Your task to perform on an android device: choose inbox layout in the gmail app Image 0: 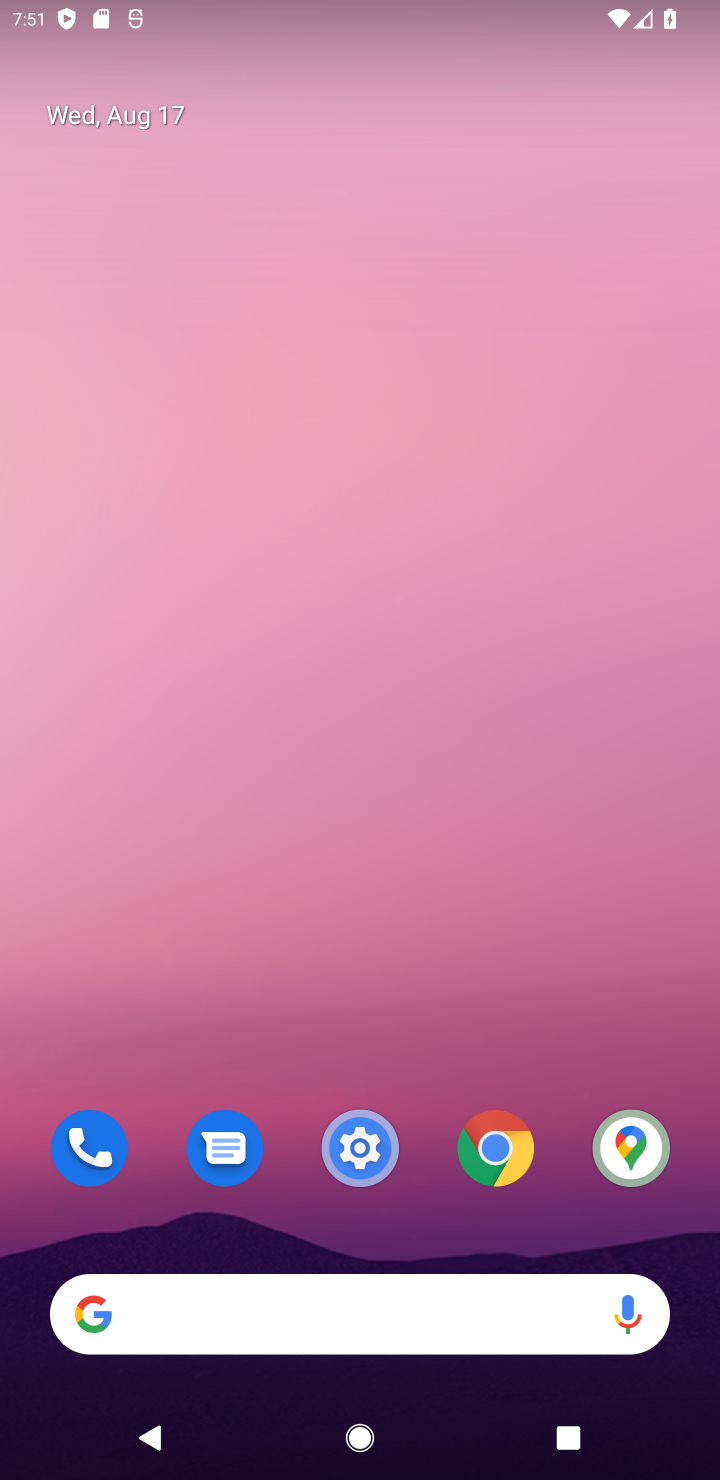
Step 0: drag from (259, 1264) to (346, 555)
Your task to perform on an android device: choose inbox layout in the gmail app Image 1: 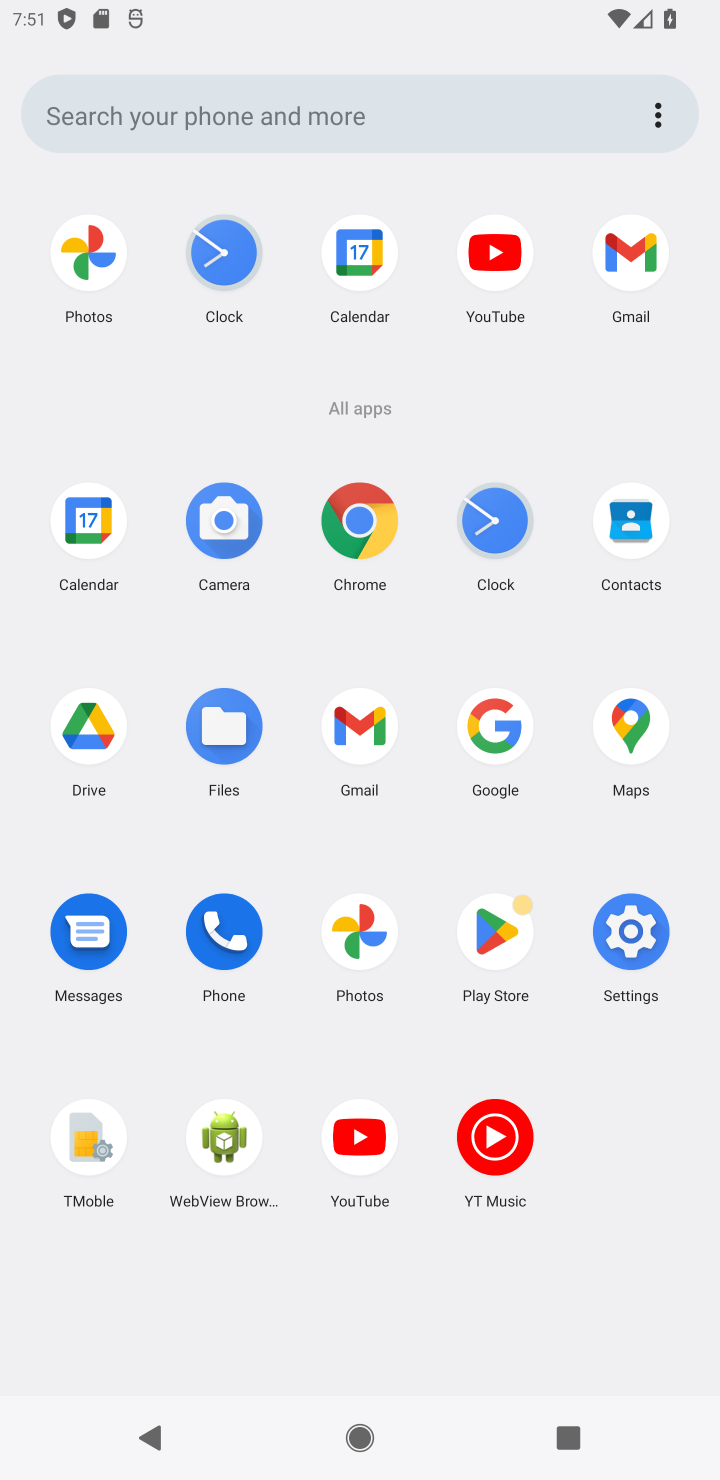
Step 1: click (338, 746)
Your task to perform on an android device: choose inbox layout in the gmail app Image 2: 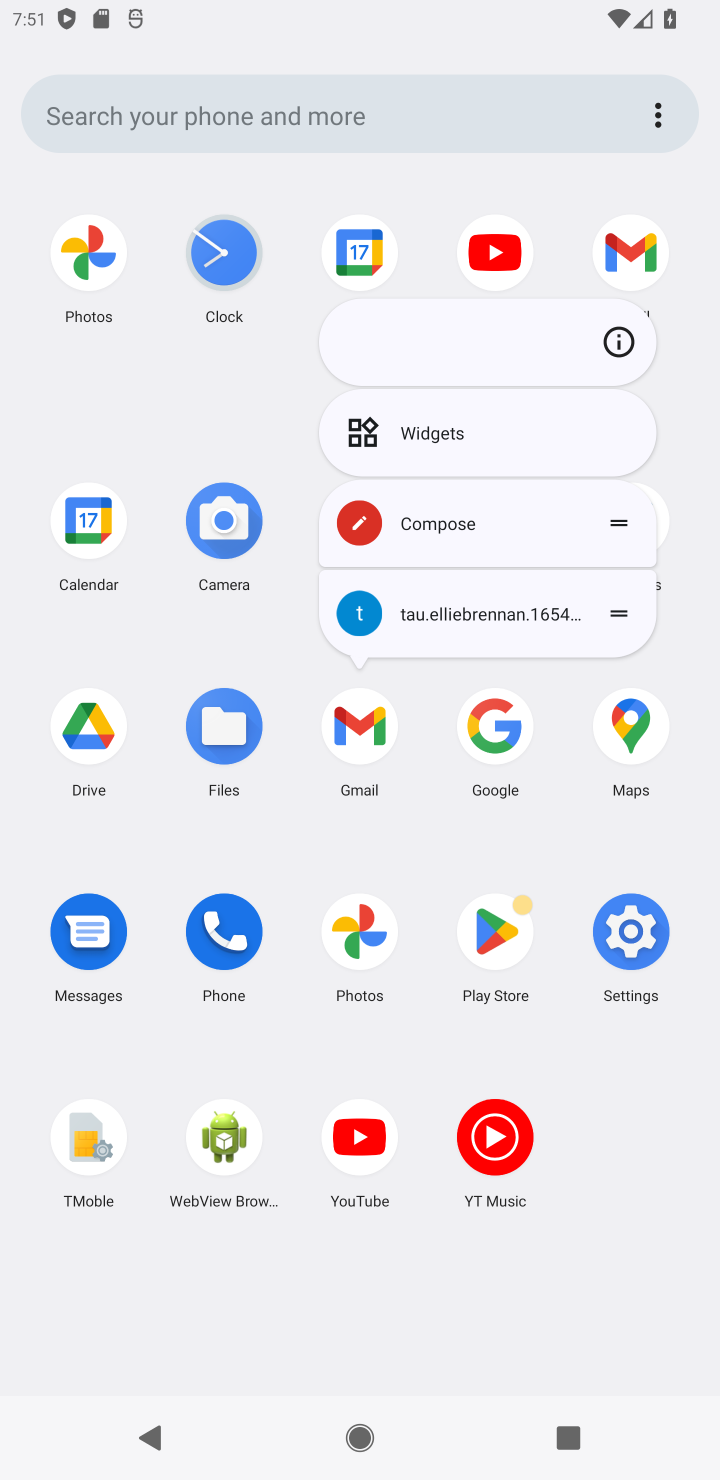
Step 2: click (338, 746)
Your task to perform on an android device: choose inbox layout in the gmail app Image 3: 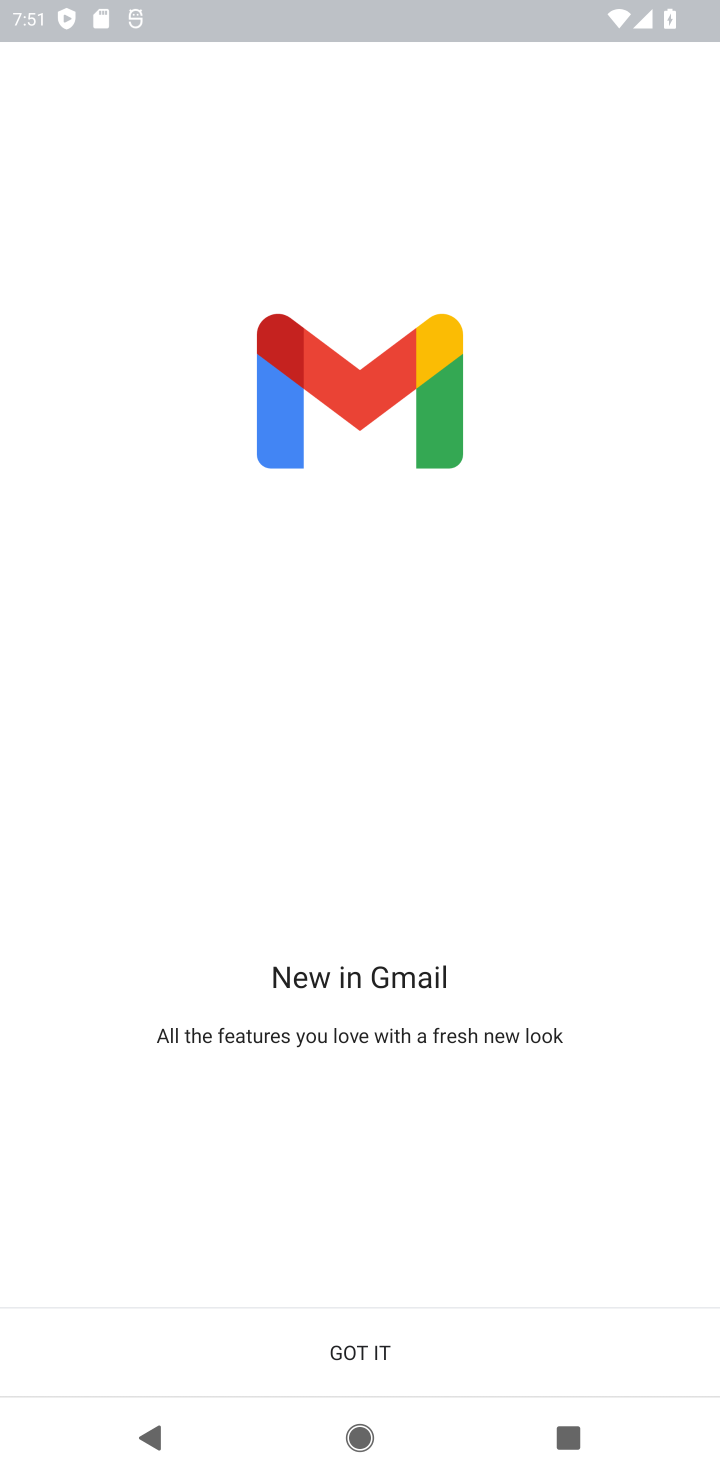
Step 3: click (395, 1347)
Your task to perform on an android device: choose inbox layout in the gmail app Image 4: 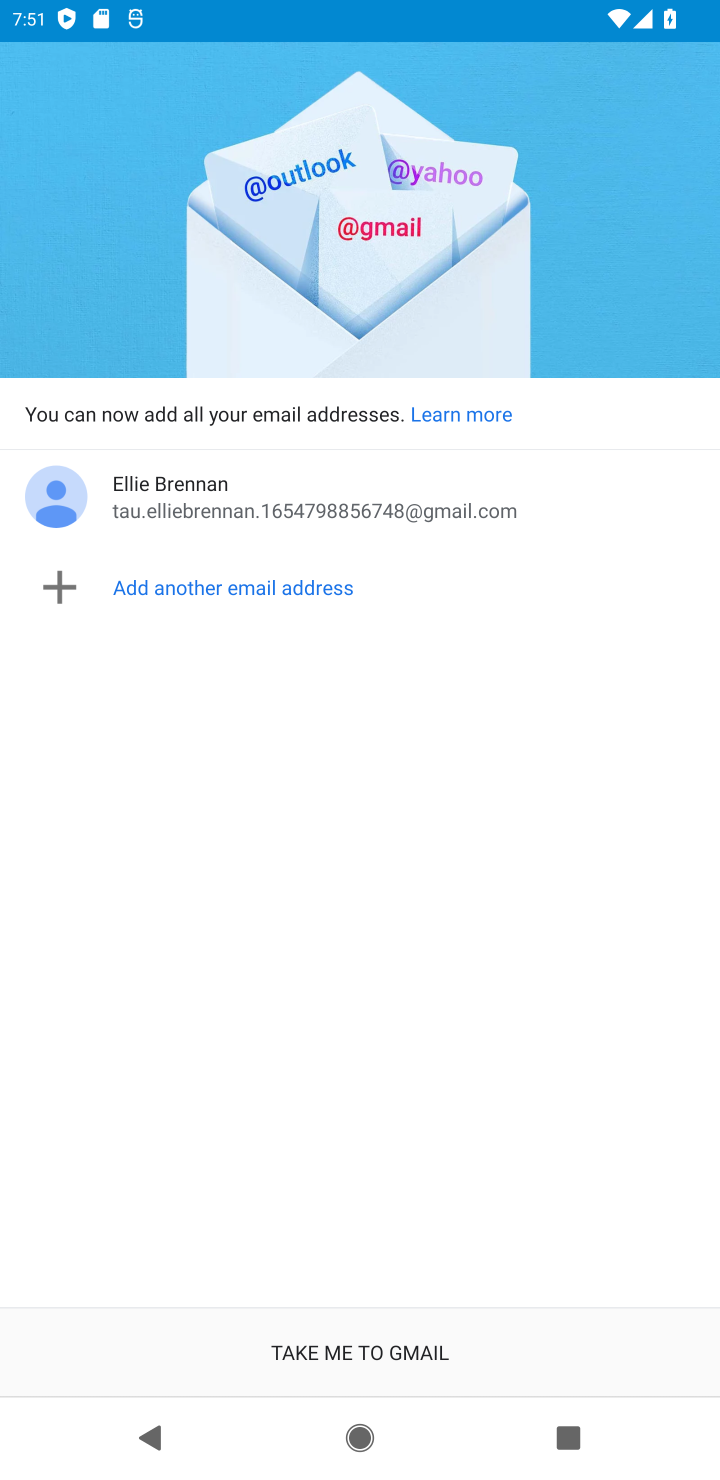
Step 4: click (395, 1347)
Your task to perform on an android device: choose inbox layout in the gmail app Image 5: 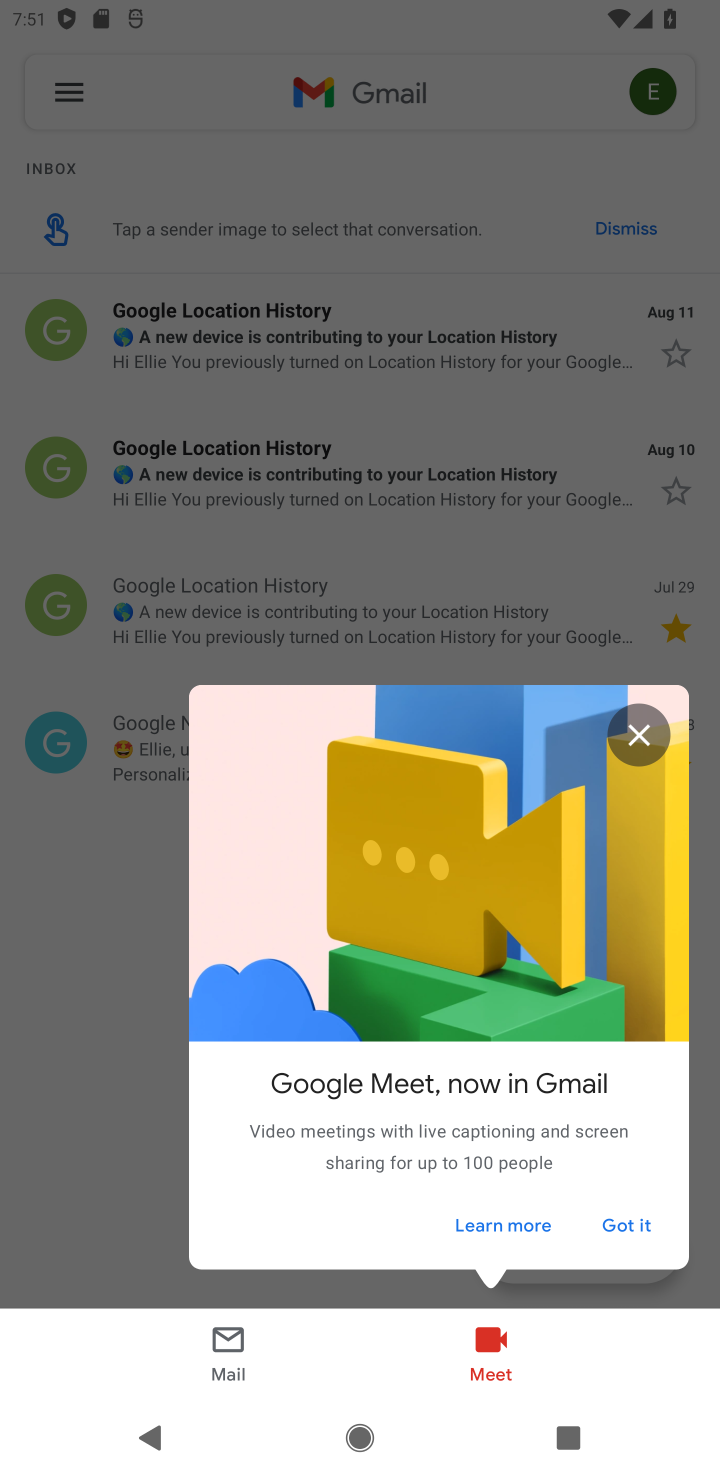
Step 5: click (626, 1230)
Your task to perform on an android device: choose inbox layout in the gmail app Image 6: 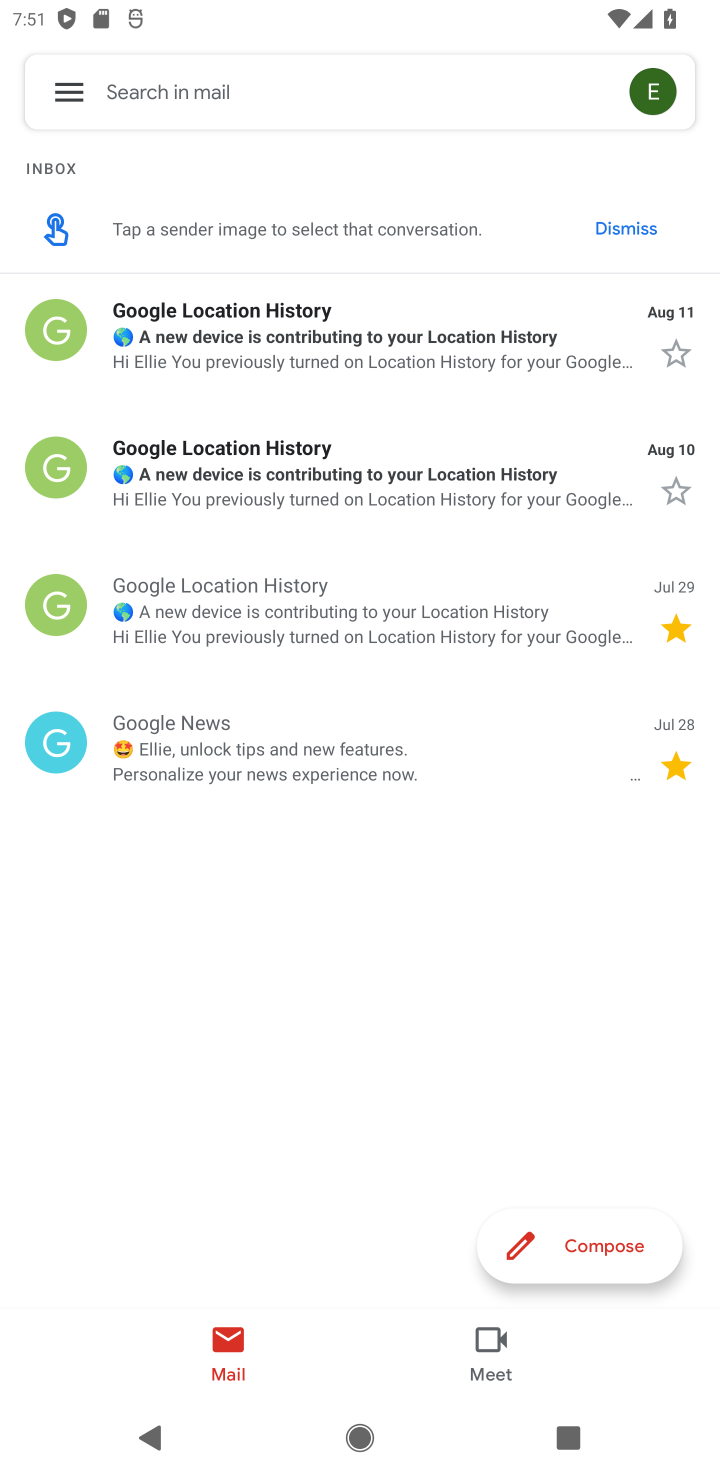
Step 6: click (66, 95)
Your task to perform on an android device: choose inbox layout in the gmail app Image 7: 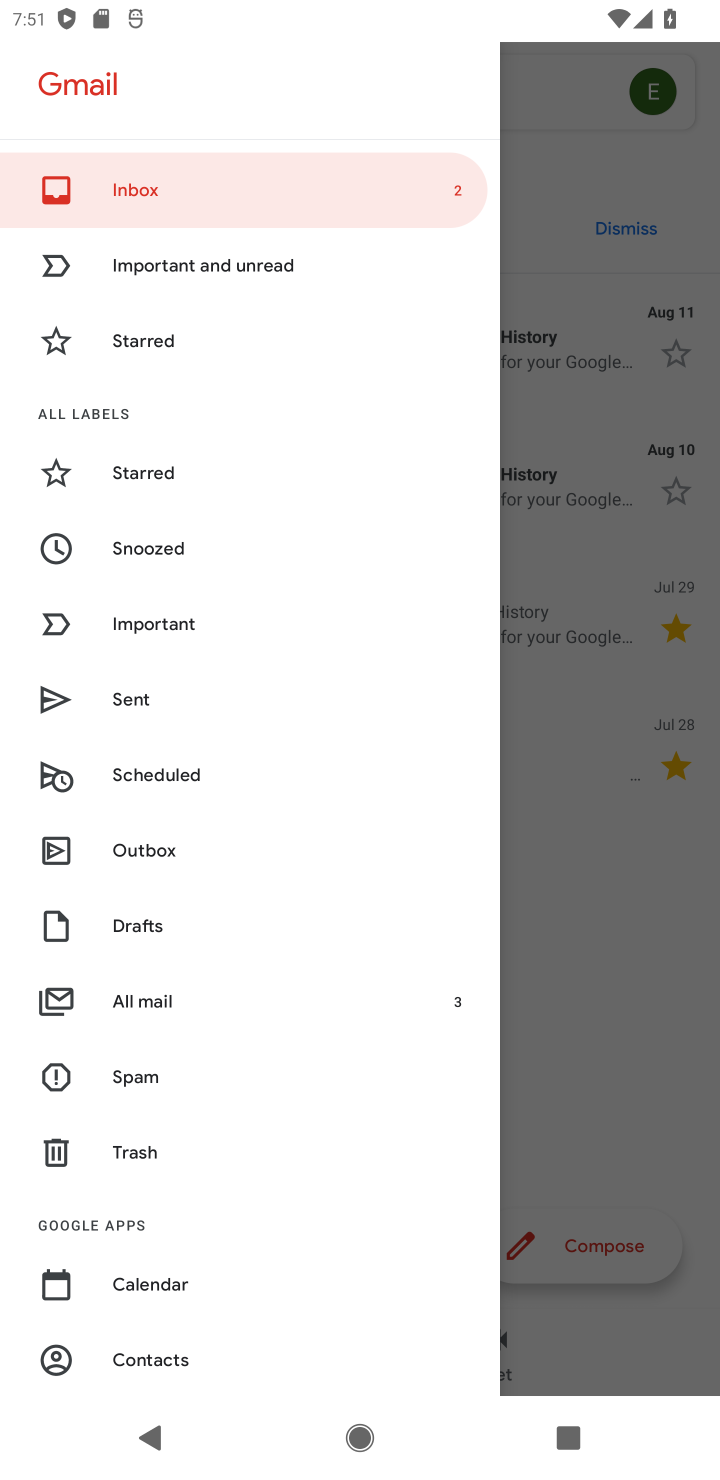
Step 7: drag from (155, 1136) to (215, 451)
Your task to perform on an android device: choose inbox layout in the gmail app Image 8: 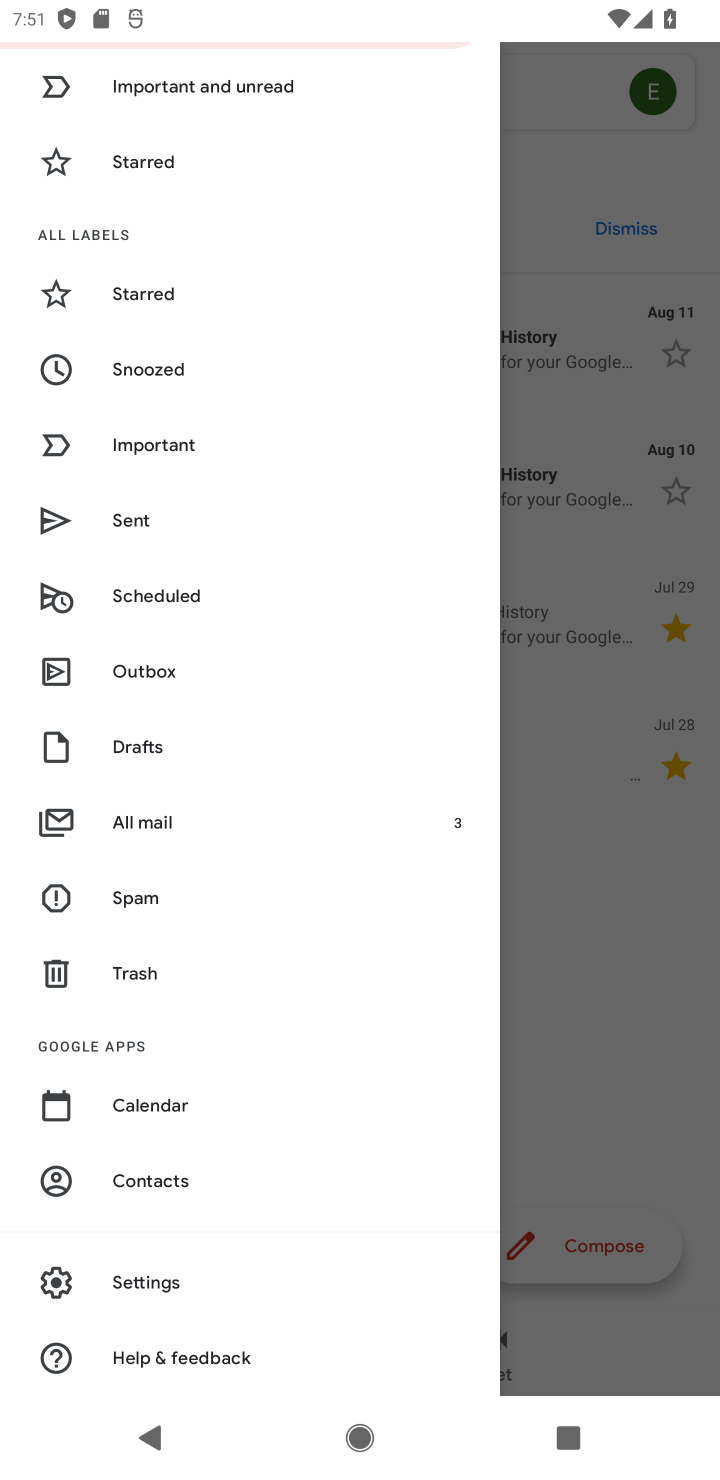
Step 8: click (152, 1286)
Your task to perform on an android device: choose inbox layout in the gmail app Image 9: 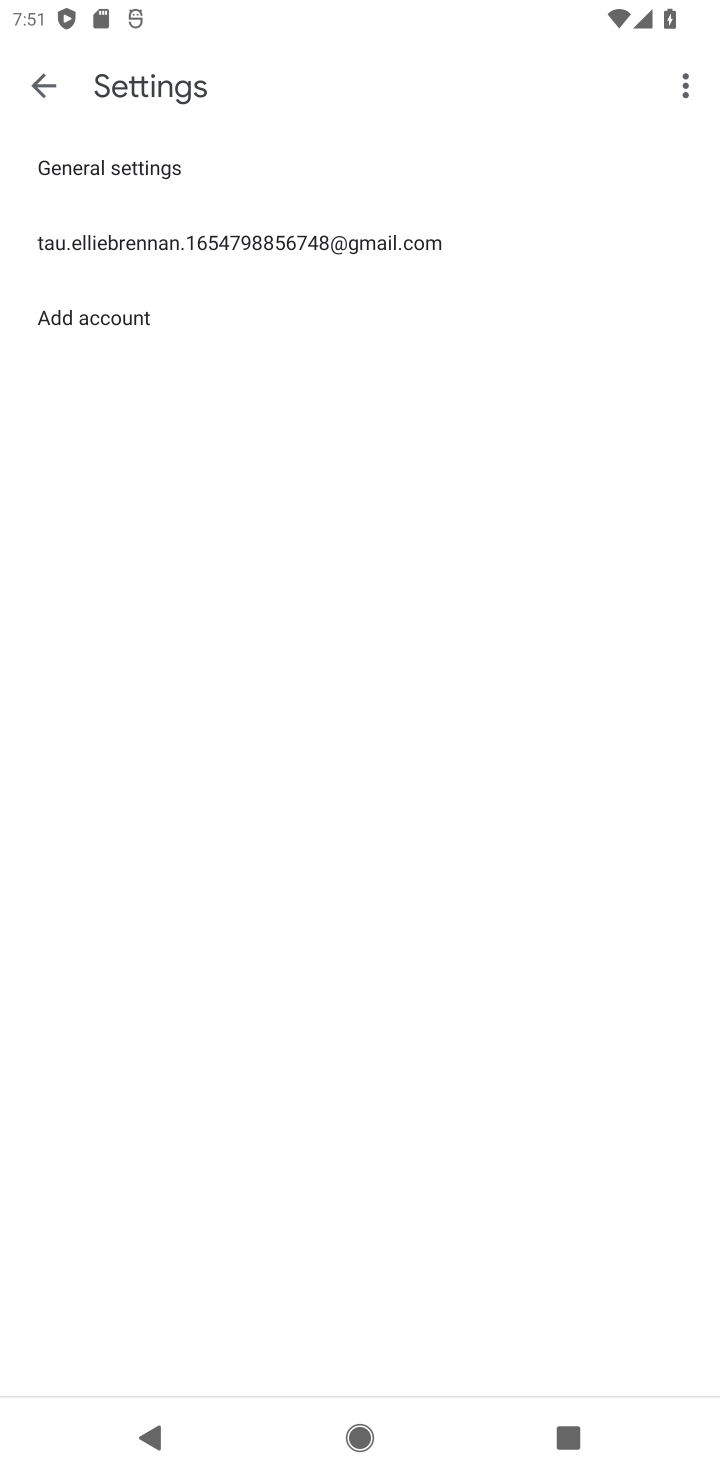
Step 9: click (176, 252)
Your task to perform on an android device: choose inbox layout in the gmail app Image 10: 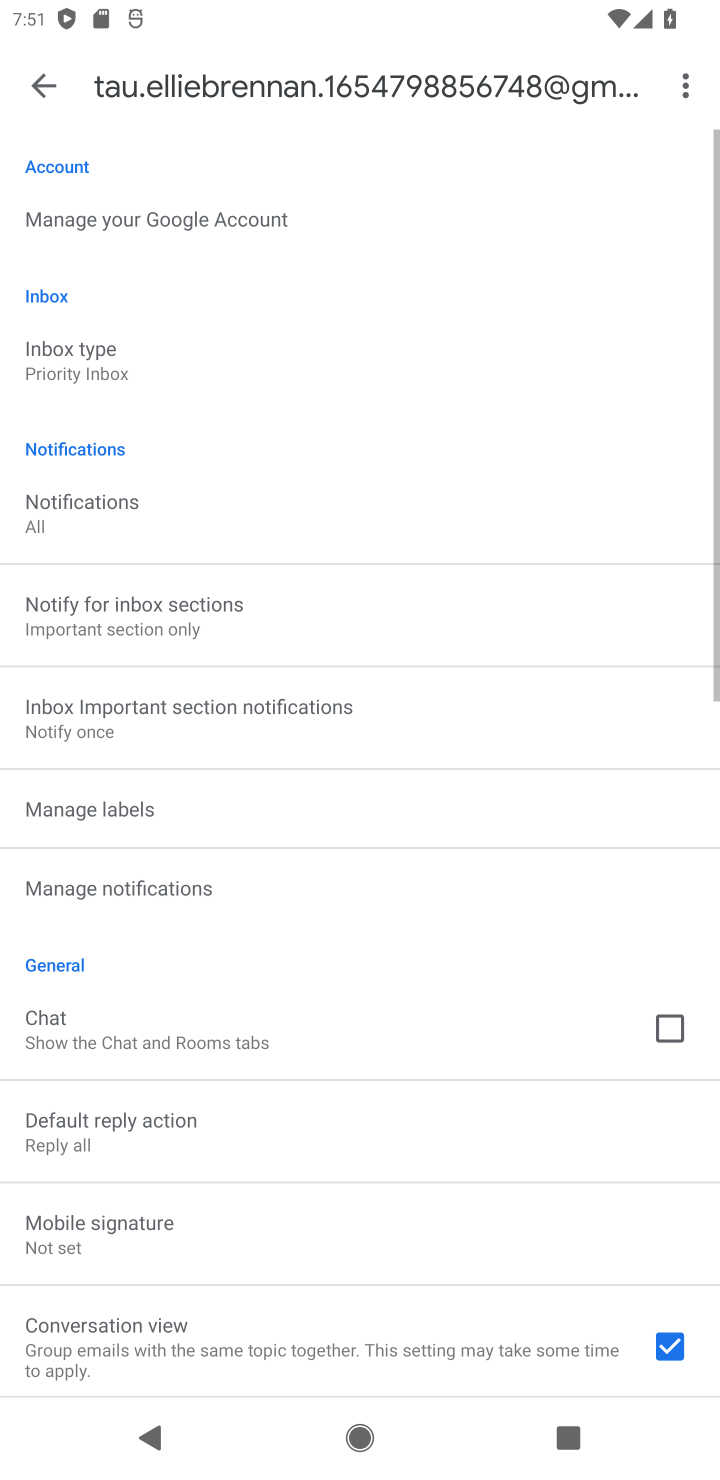
Step 10: click (55, 352)
Your task to perform on an android device: choose inbox layout in the gmail app Image 11: 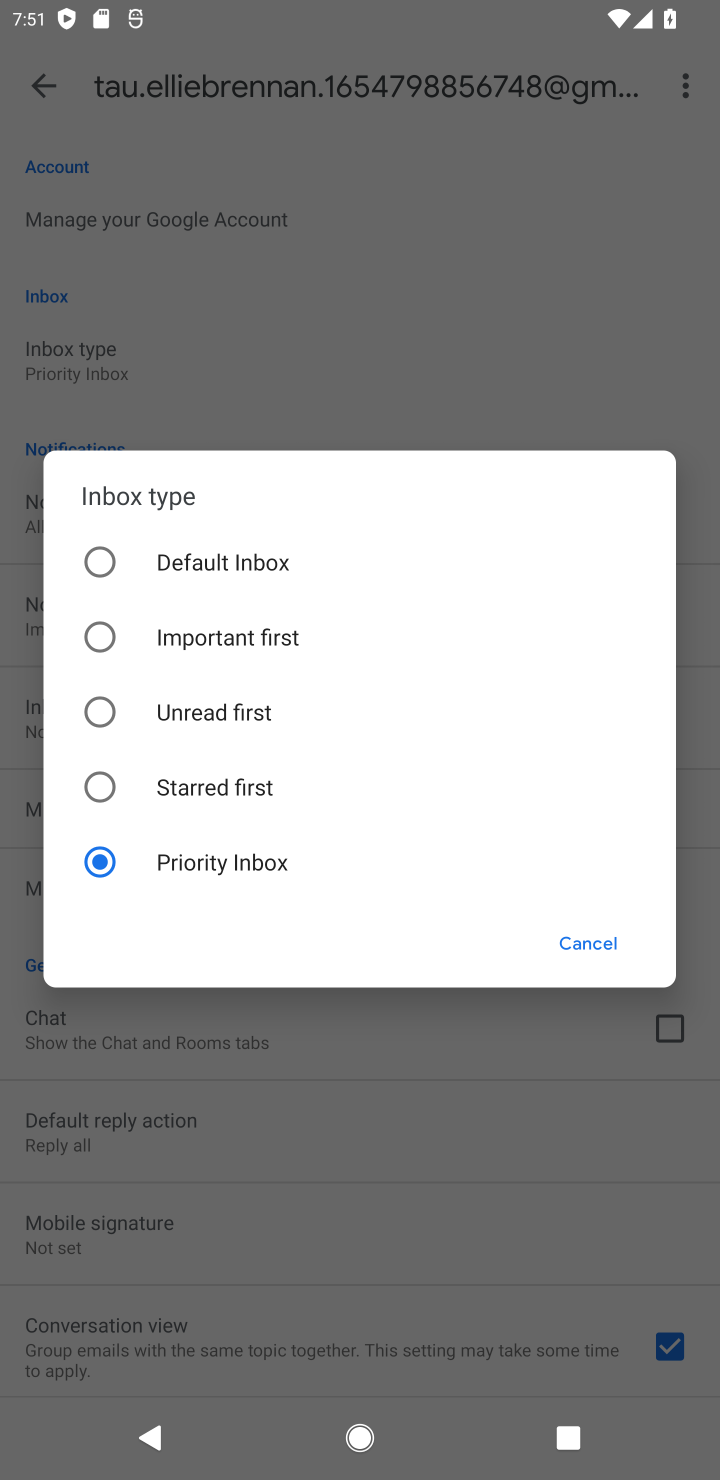
Step 11: click (236, 614)
Your task to perform on an android device: choose inbox layout in the gmail app Image 12: 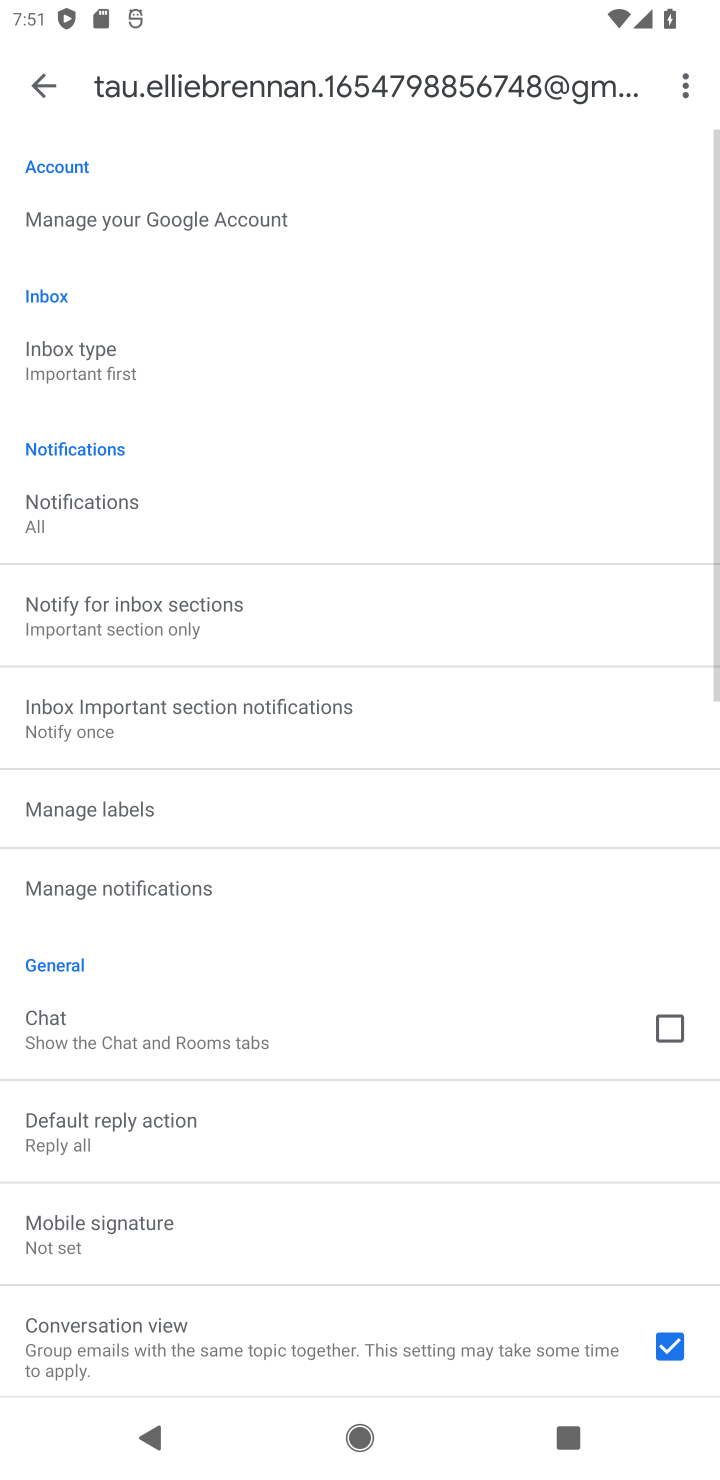
Step 12: task complete